Your task to perform on an android device: See recent photos Image 0: 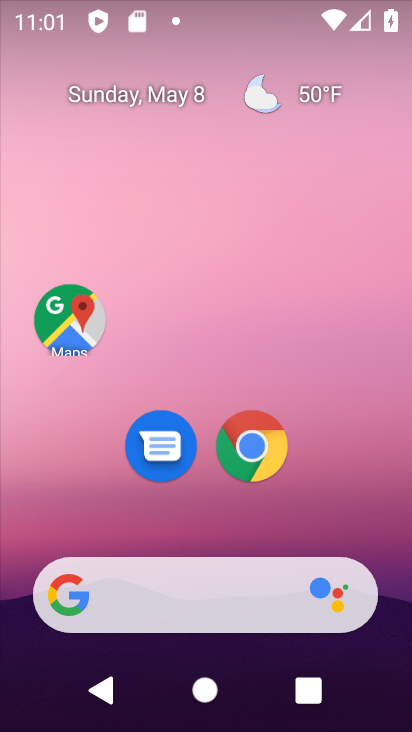
Step 0: drag from (333, 526) to (186, 8)
Your task to perform on an android device: See recent photos Image 1: 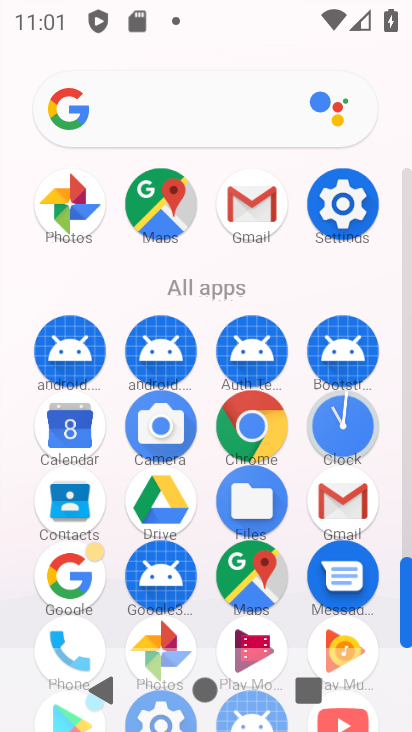
Step 1: click (164, 635)
Your task to perform on an android device: See recent photos Image 2: 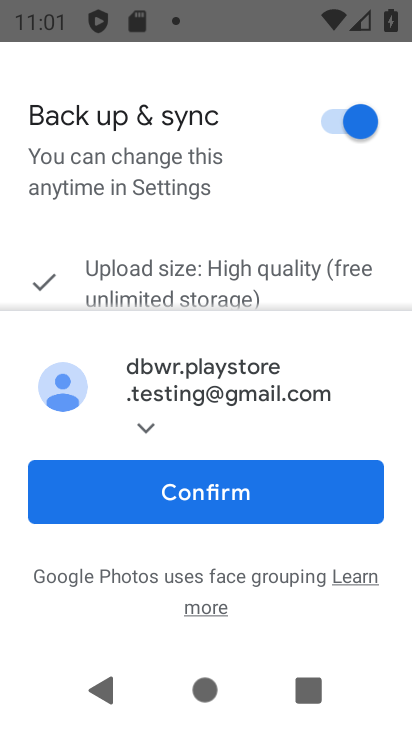
Step 2: click (216, 476)
Your task to perform on an android device: See recent photos Image 3: 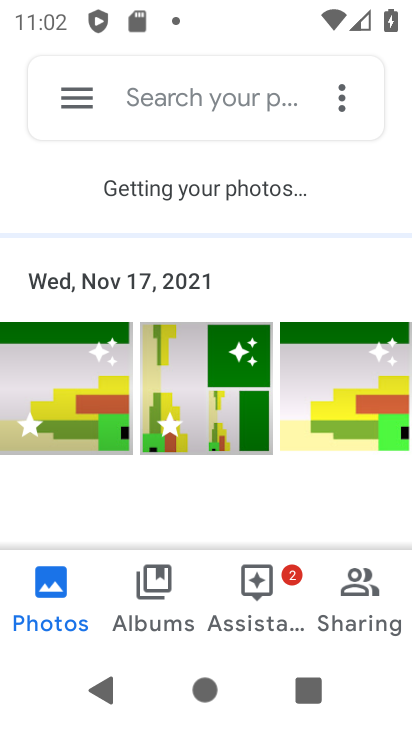
Step 3: task complete